Your task to perform on an android device: Go to Google maps Image 0: 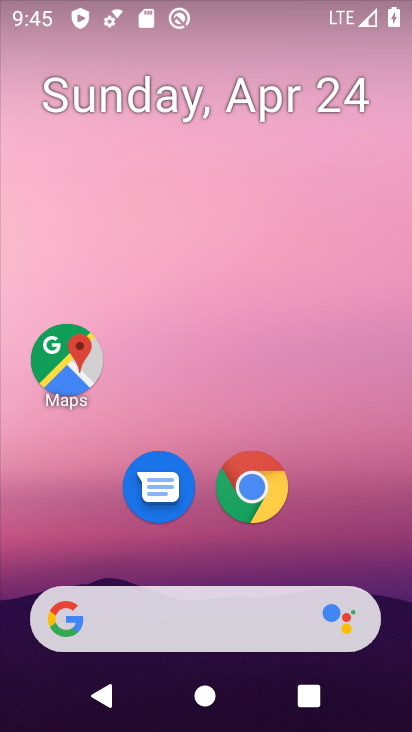
Step 0: drag from (335, 535) to (285, 61)
Your task to perform on an android device: Go to Google maps Image 1: 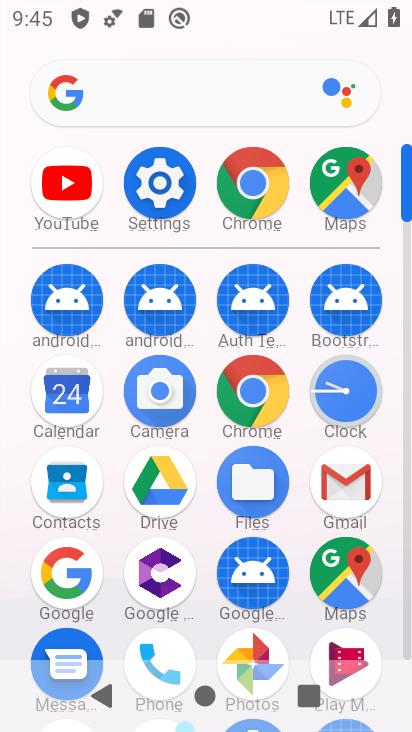
Step 1: drag from (293, 214) to (297, 29)
Your task to perform on an android device: Go to Google maps Image 2: 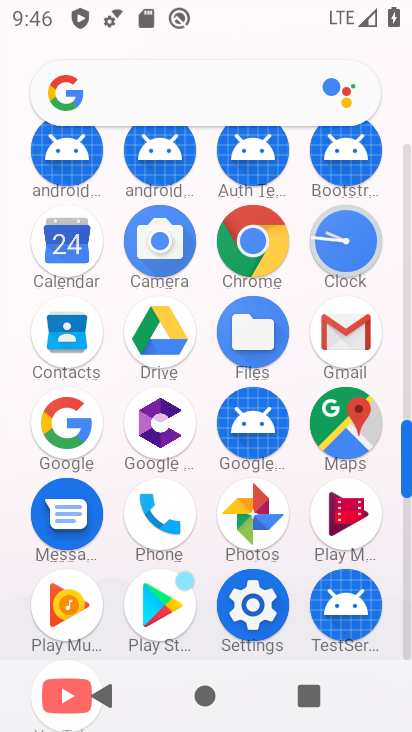
Step 2: click (352, 424)
Your task to perform on an android device: Go to Google maps Image 3: 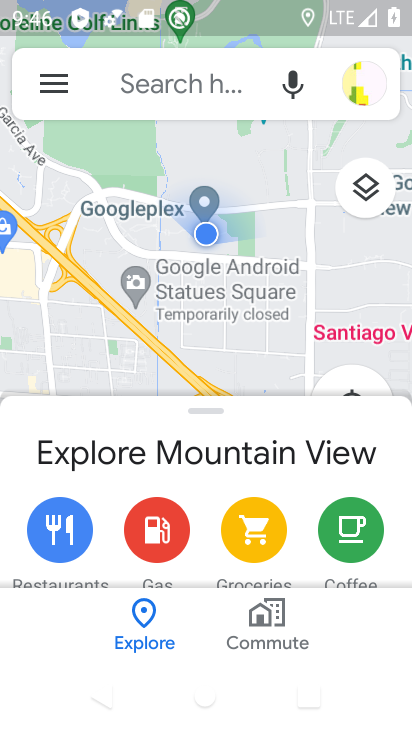
Step 3: task complete